Your task to perform on an android device: Show me productivity apps on the Play Store Image 0: 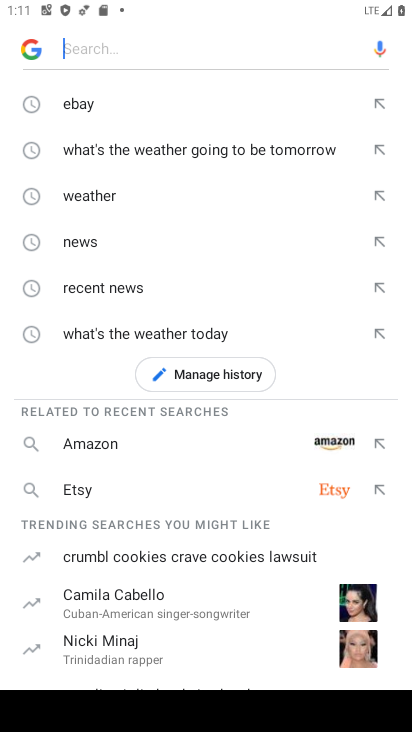
Step 0: press home button
Your task to perform on an android device: Show me productivity apps on the Play Store Image 1: 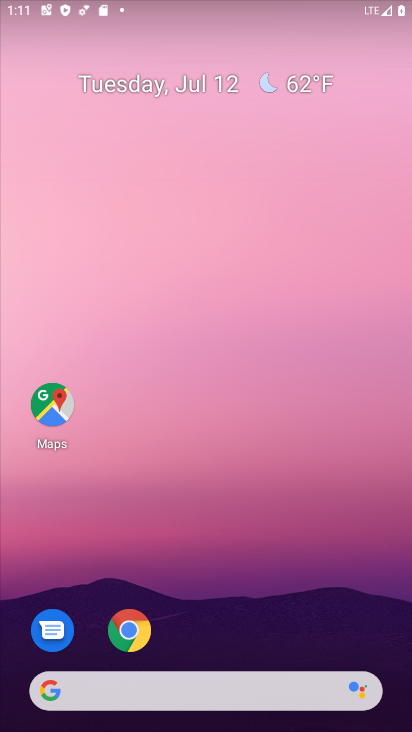
Step 1: drag from (194, 575) to (251, 54)
Your task to perform on an android device: Show me productivity apps on the Play Store Image 2: 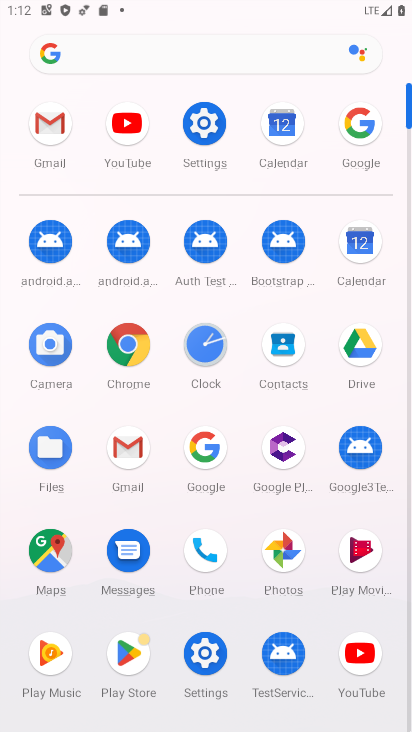
Step 2: click (128, 656)
Your task to perform on an android device: Show me productivity apps on the Play Store Image 3: 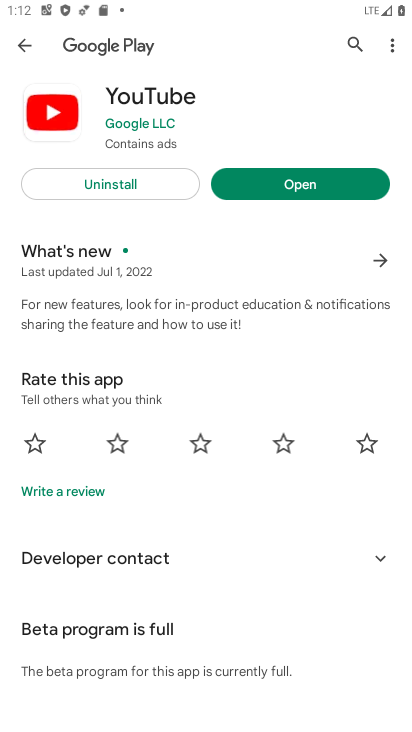
Step 3: press back button
Your task to perform on an android device: Show me productivity apps on the Play Store Image 4: 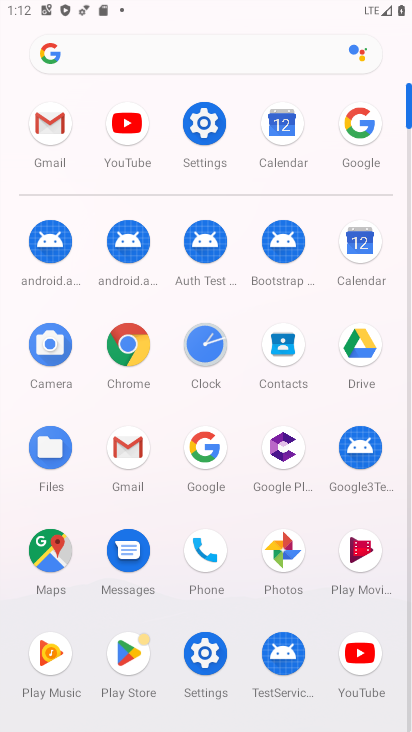
Step 4: click (128, 653)
Your task to perform on an android device: Show me productivity apps on the Play Store Image 5: 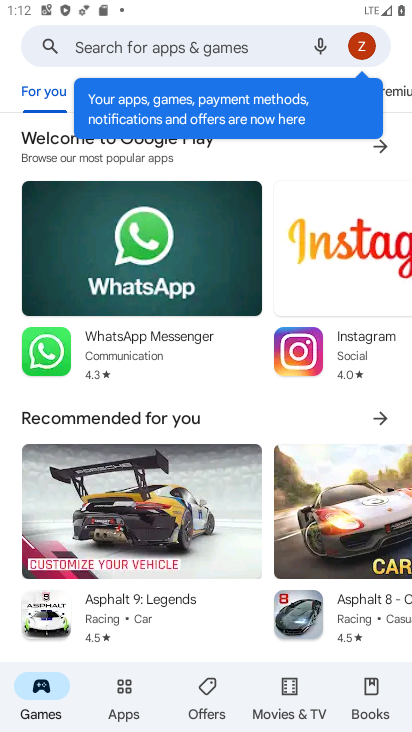
Step 5: click (124, 708)
Your task to perform on an android device: Show me productivity apps on the Play Store Image 6: 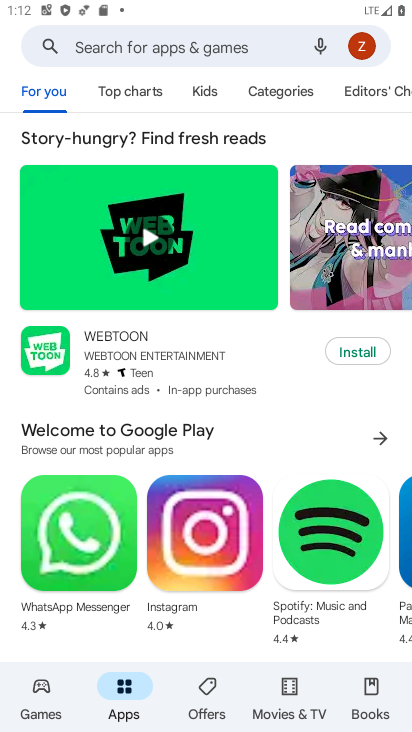
Step 6: drag from (350, 89) to (37, 78)
Your task to perform on an android device: Show me productivity apps on the Play Store Image 7: 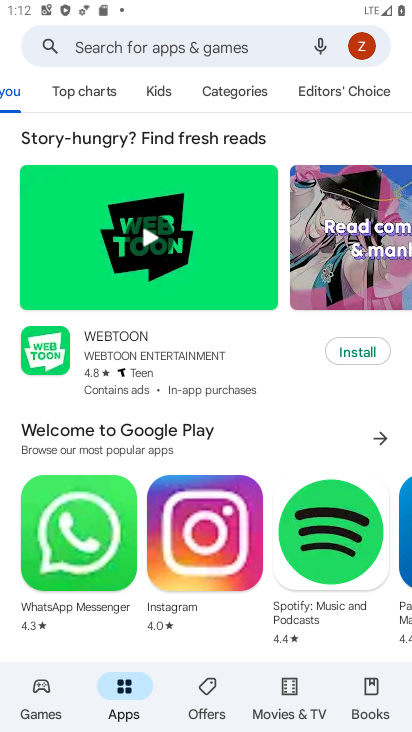
Step 7: click (250, 91)
Your task to perform on an android device: Show me productivity apps on the Play Store Image 8: 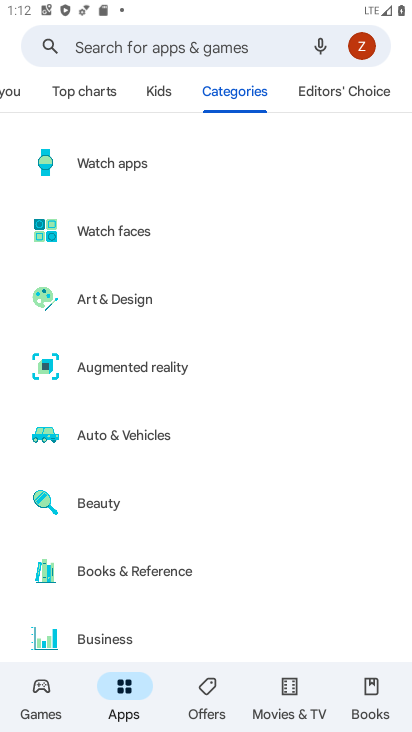
Step 8: drag from (204, 603) to (207, 63)
Your task to perform on an android device: Show me productivity apps on the Play Store Image 9: 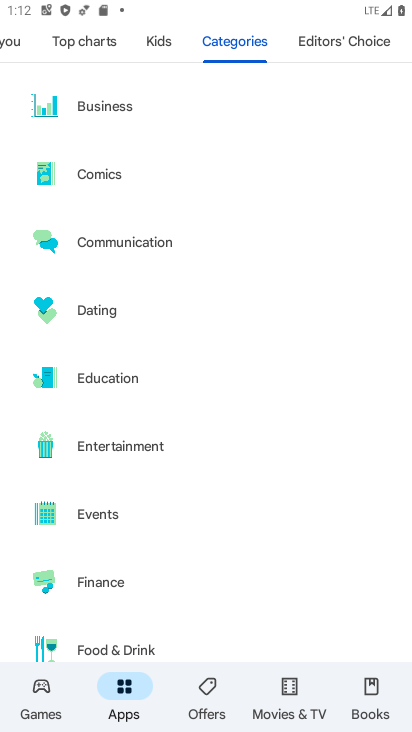
Step 9: drag from (212, 634) to (236, 71)
Your task to perform on an android device: Show me productivity apps on the Play Store Image 10: 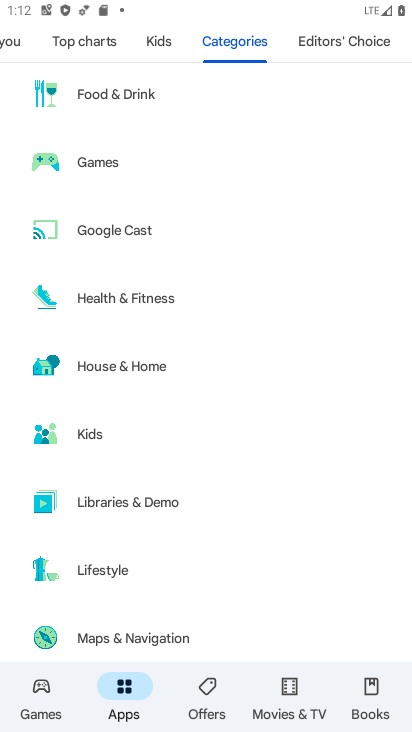
Step 10: drag from (205, 604) to (200, 176)
Your task to perform on an android device: Show me productivity apps on the Play Store Image 11: 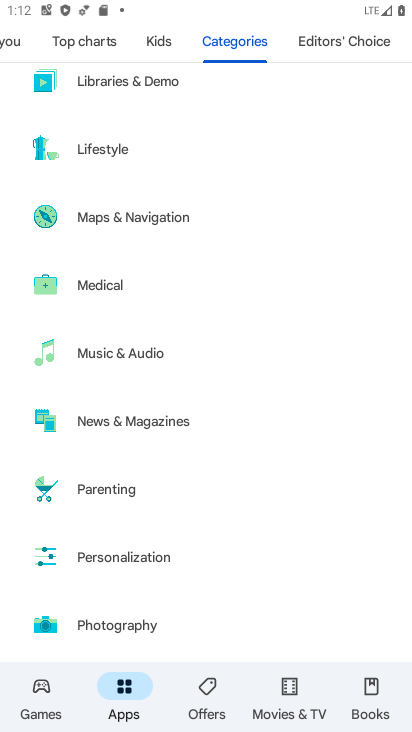
Step 11: drag from (190, 615) to (174, 310)
Your task to perform on an android device: Show me productivity apps on the Play Store Image 12: 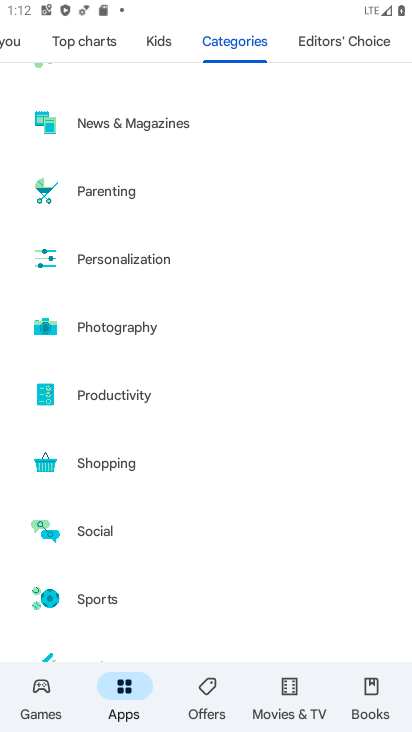
Step 12: click (128, 397)
Your task to perform on an android device: Show me productivity apps on the Play Store Image 13: 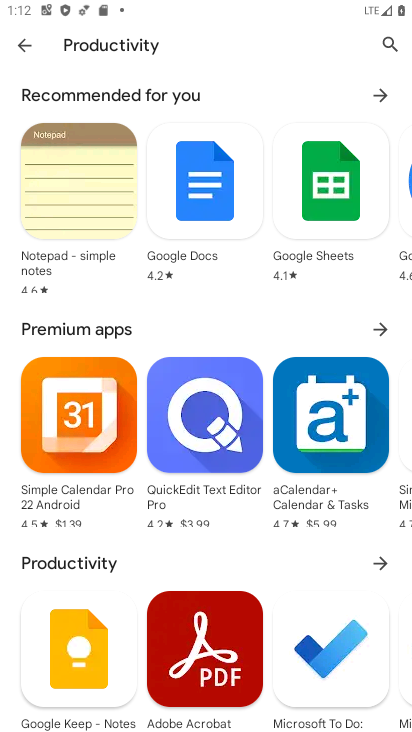
Step 13: task complete